Your task to perform on an android device: Go to settings Image 0: 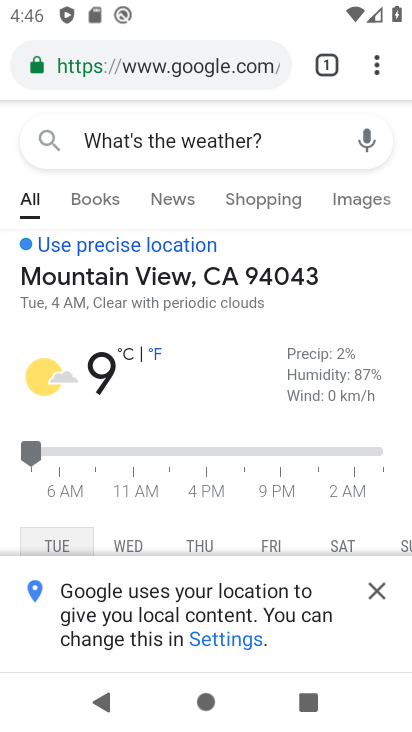
Step 0: press back button
Your task to perform on an android device: Go to settings Image 1: 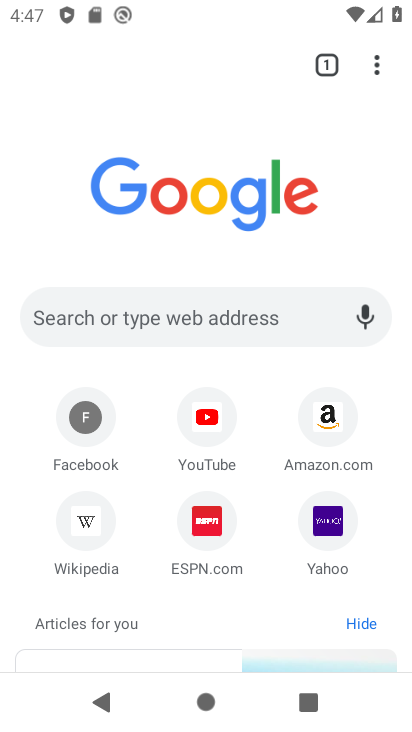
Step 1: press back button
Your task to perform on an android device: Go to settings Image 2: 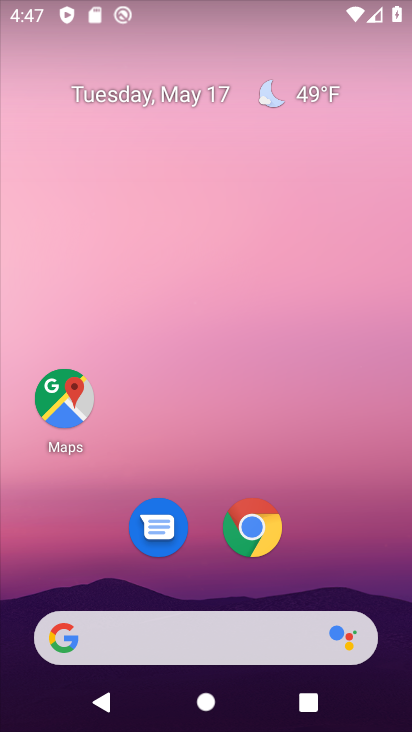
Step 2: drag from (351, 525) to (229, 0)
Your task to perform on an android device: Go to settings Image 3: 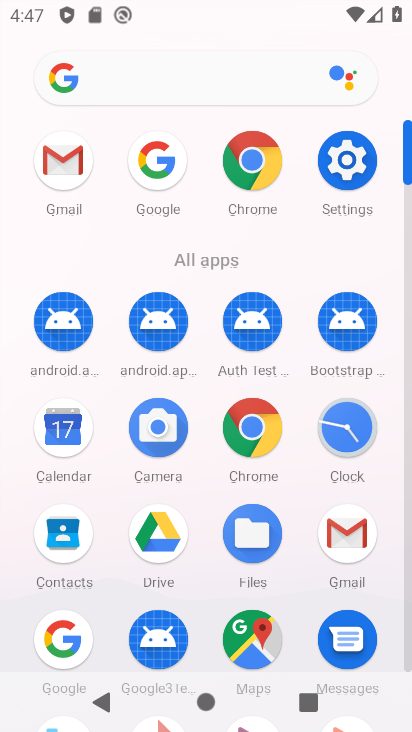
Step 3: drag from (13, 546) to (7, 202)
Your task to perform on an android device: Go to settings Image 4: 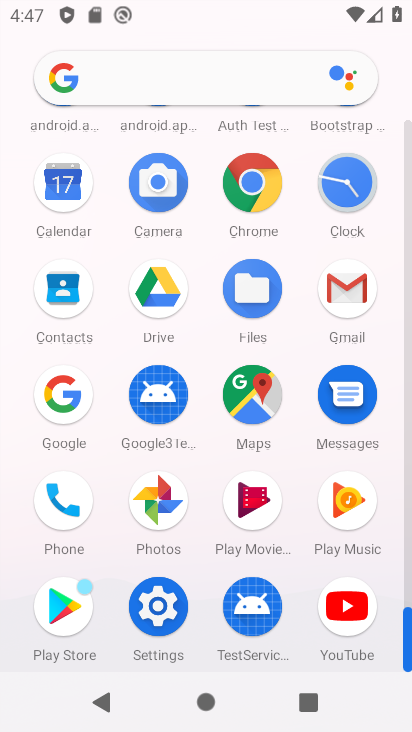
Step 4: click (158, 607)
Your task to perform on an android device: Go to settings Image 5: 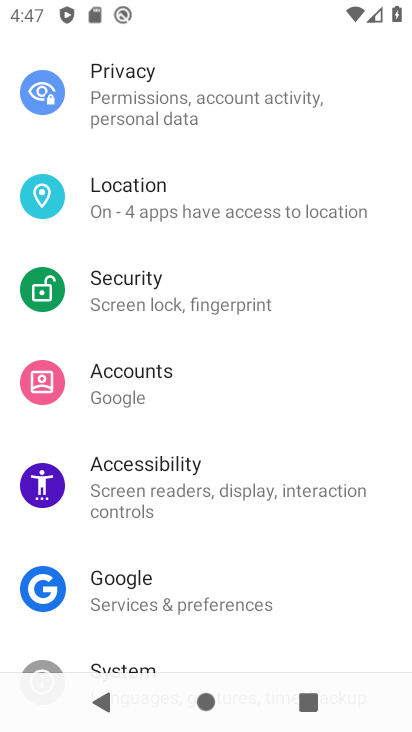
Step 5: task complete